Your task to perform on an android device: Go to ESPN.com Image 0: 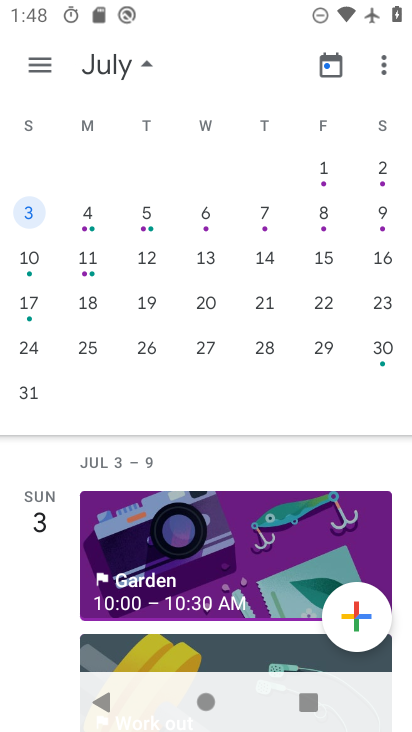
Step 0: press home button
Your task to perform on an android device: Go to ESPN.com Image 1: 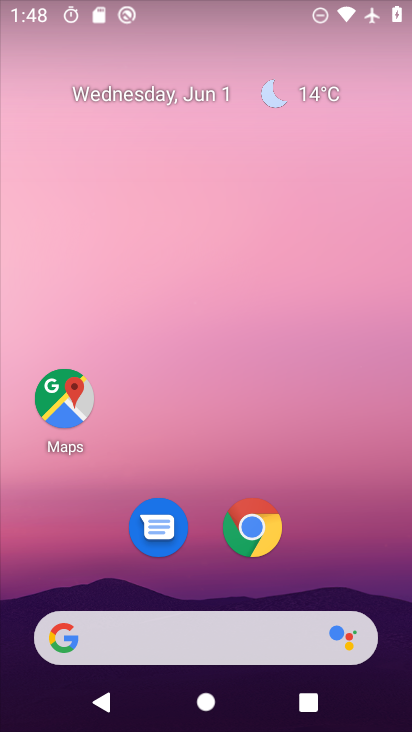
Step 1: drag from (217, 581) to (283, 15)
Your task to perform on an android device: Go to ESPN.com Image 2: 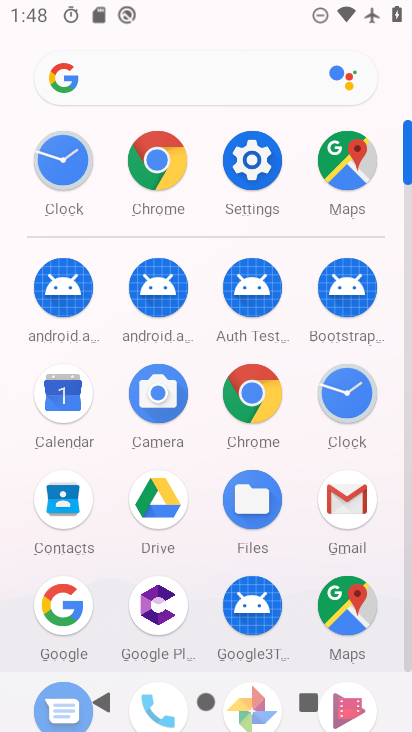
Step 2: click (155, 167)
Your task to perform on an android device: Go to ESPN.com Image 3: 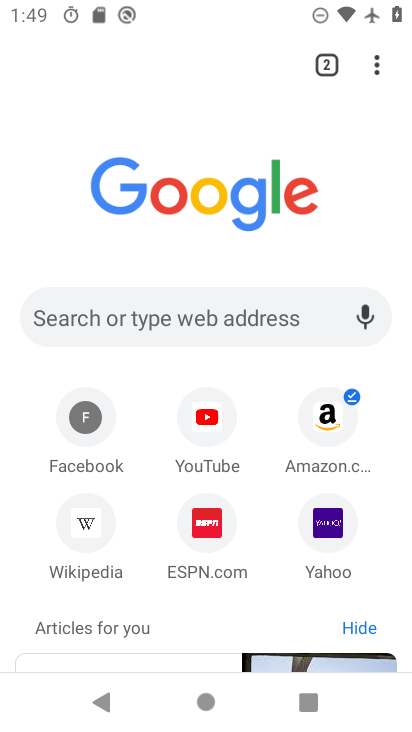
Step 3: click (205, 531)
Your task to perform on an android device: Go to ESPN.com Image 4: 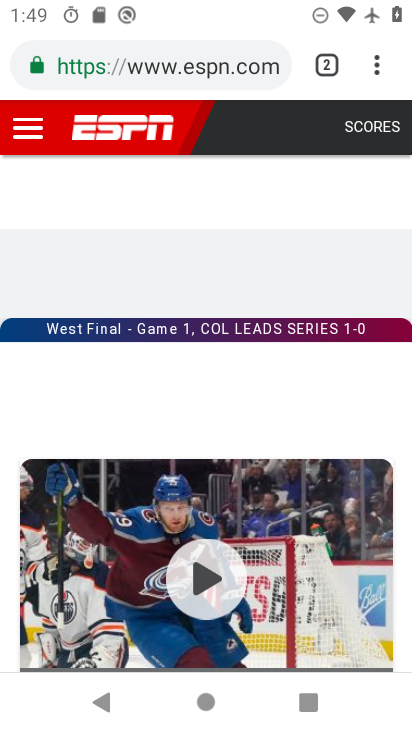
Step 4: task complete